Your task to perform on an android device: Open calendar and show me the first week of next month Image 0: 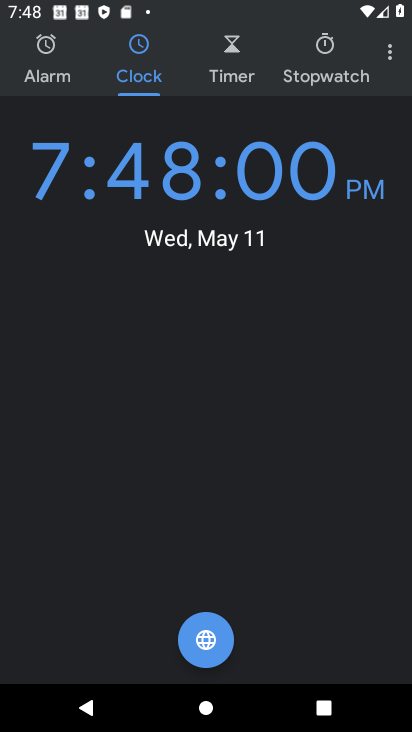
Step 0: press home button
Your task to perform on an android device: Open calendar and show me the first week of next month Image 1: 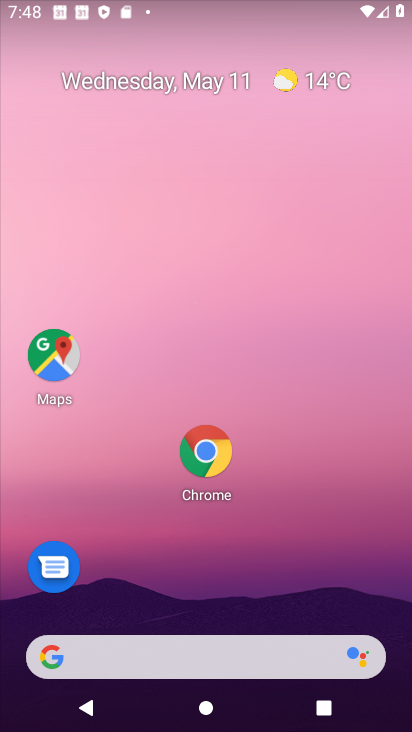
Step 1: drag from (213, 645) to (308, 294)
Your task to perform on an android device: Open calendar and show me the first week of next month Image 2: 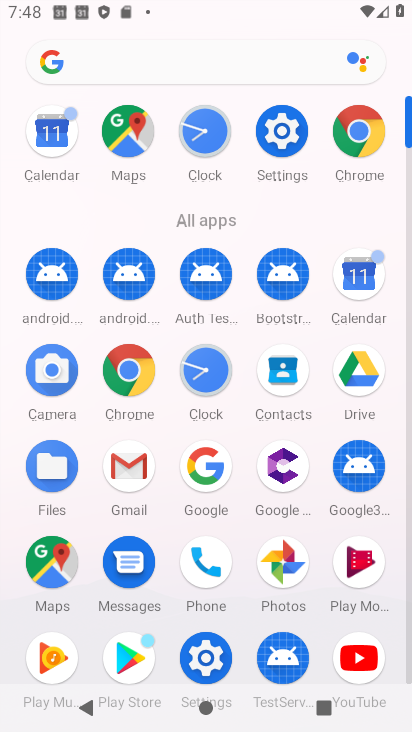
Step 2: click (357, 279)
Your task to perform on an android device: Open calendar and show me the first week of next month Image 3: 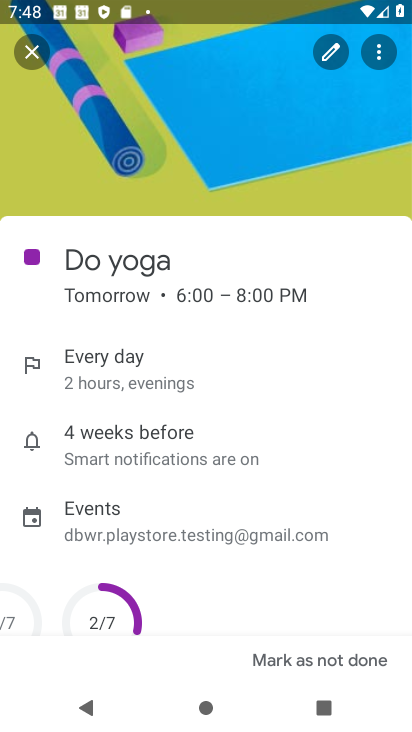
Step 3: click (32, 49)
Your task to perform on an android device: Open calendar and show me the first week of next month Image 4: 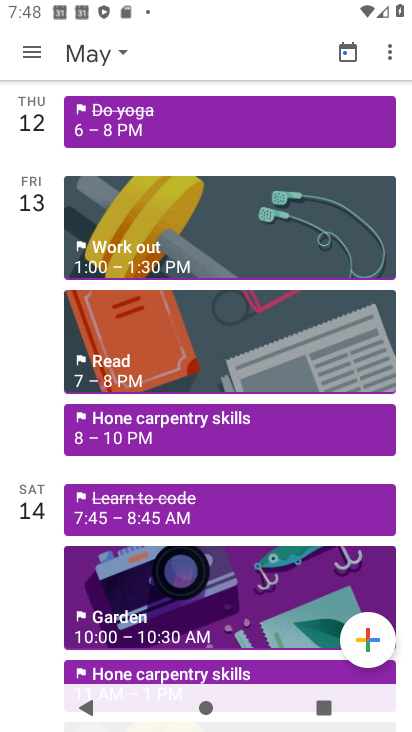
Step 4: click (91, 60)
Your task to perform on an android device: Open calendar and show me the first week of next month Image 5: 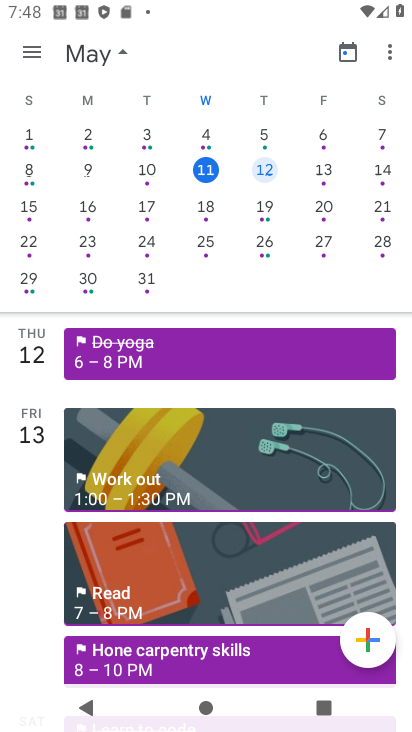
Step 5: drag from (349, 207) to (40, 243)
Your task to perform on an android device: Open calendar and show me the first week of next month Image 6: 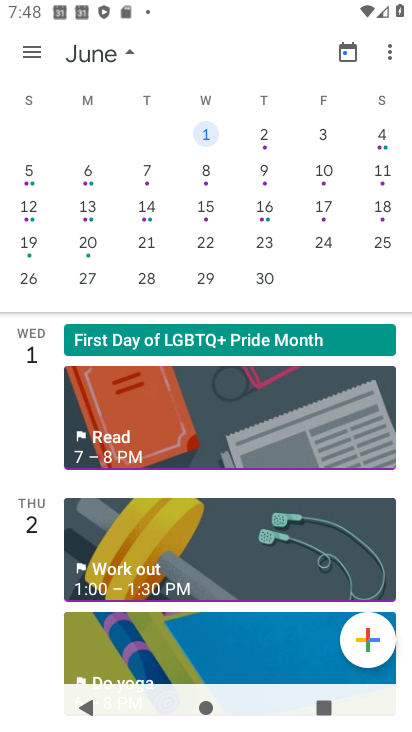
Step 6: click (208, 137)
Your task to perform on an android device: Open calendar and show me the first week of next month Image 7: 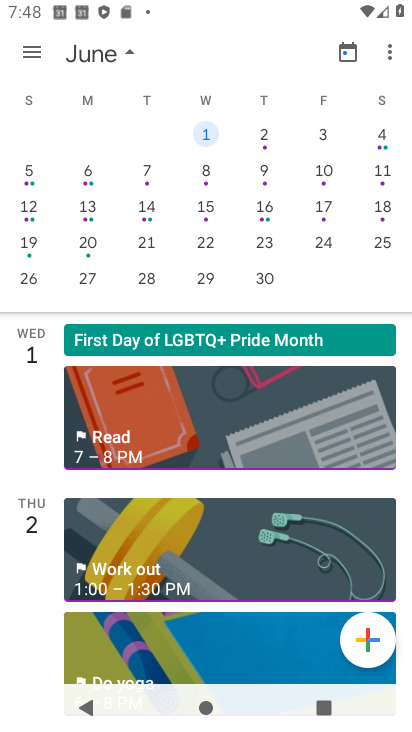
Step 7: click (30, 52)
Your task to perform on an android device: Open calendar and show me the first week of next month Image 8: 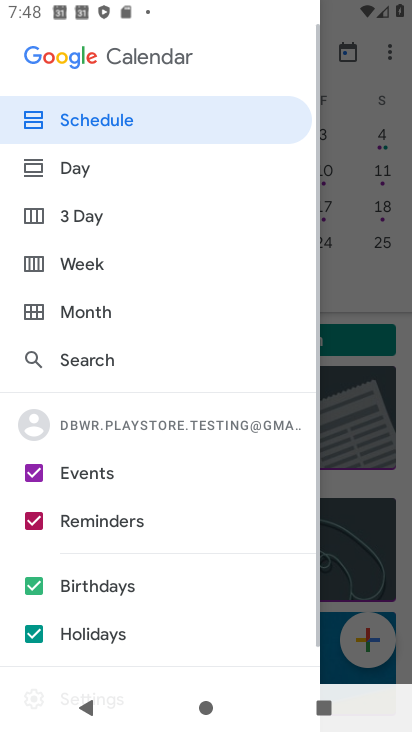
Step 8: click (85, 263)
Your task to perform on an android device: Open calendar and show me the first week of next month Image 9: 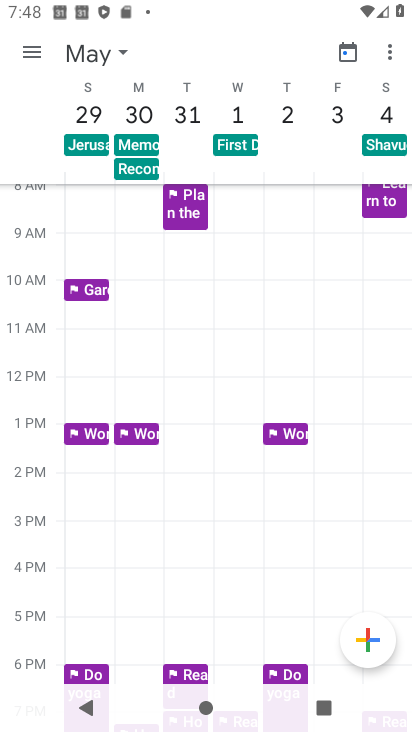
Step 9: task complete